Your task to perform on an android device: show emergency info Image 0: 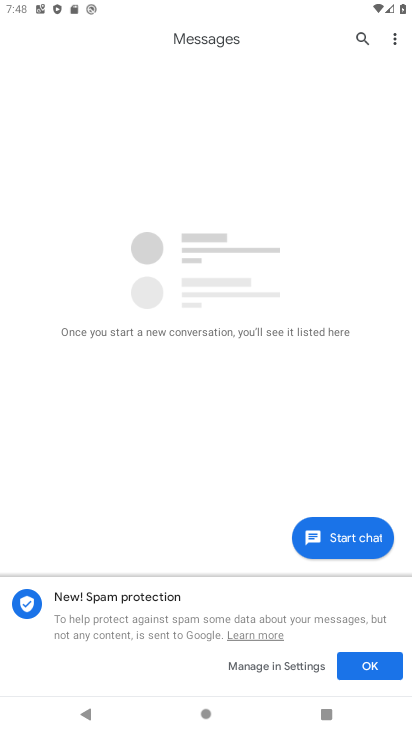
Step 0: press home button
Your task to perform on an android device: show emergency info Image 1: 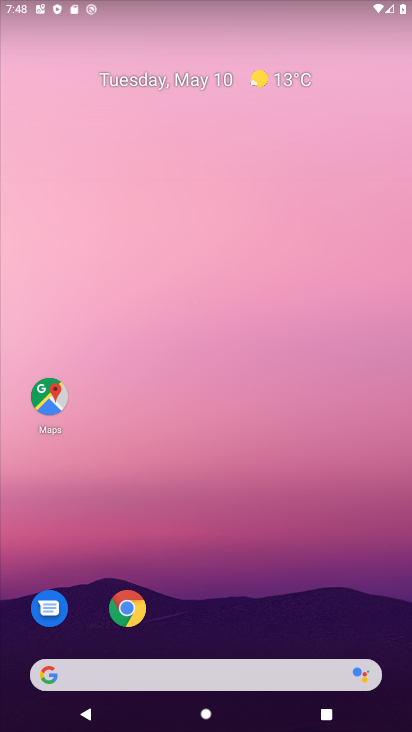
Step 1: drag from (203, 497) to (220, 129)
Your task to perform on an android device: show emergency info Image 2: 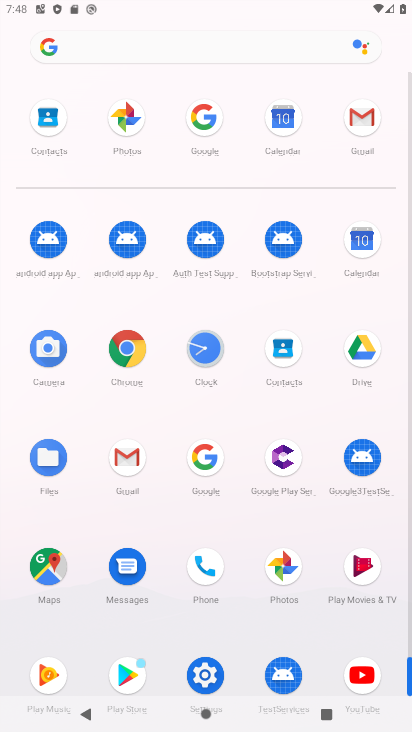
Step 2: click (199, 679)
Your task to perform on an android device: show emergency info Image 3: 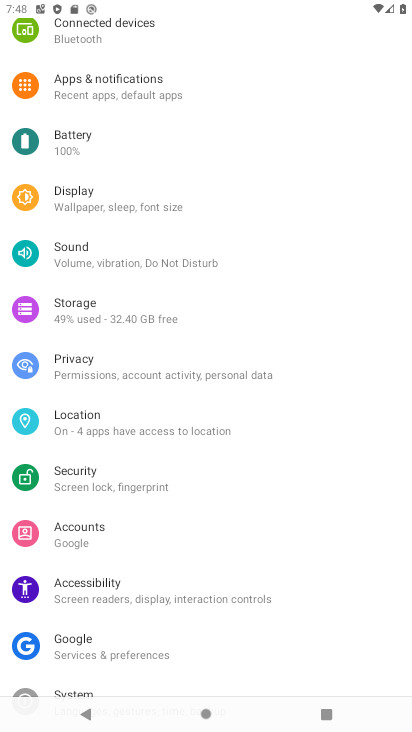
Step 3: drag from (182, 664) to (276, 193)
Your task to perform on an android device: show emergency info Image 4: 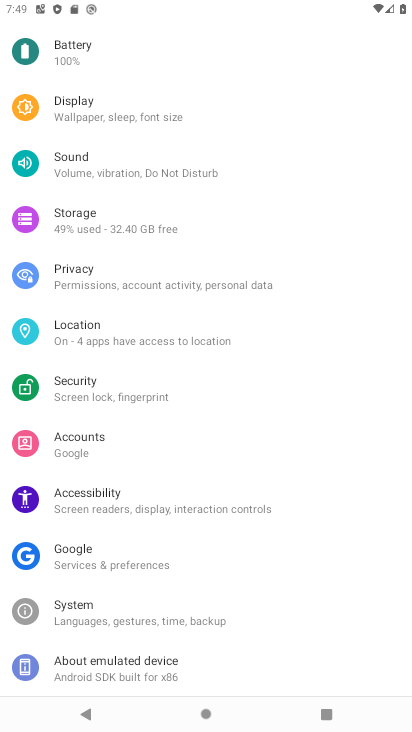
Step 4: click (134, 671)
Your task to perform on an android device: show emergency info Image 5: 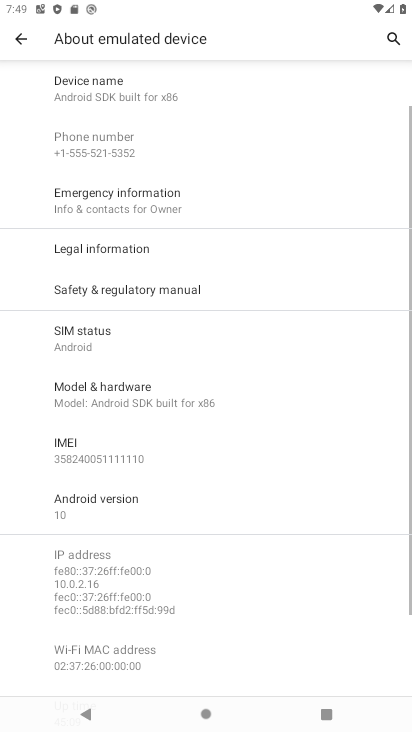
Step 5: click (92, 192)
Your task to perform on an android device: show emergency info Image 6: 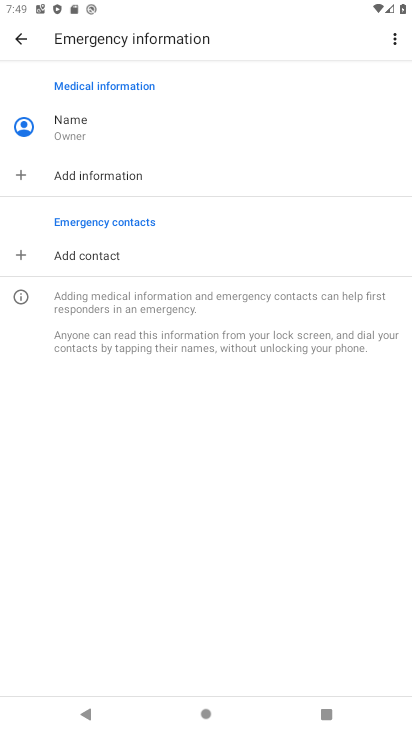
Step 6: task complete